Your task to perform on an android device: Go to location settings Image 0: 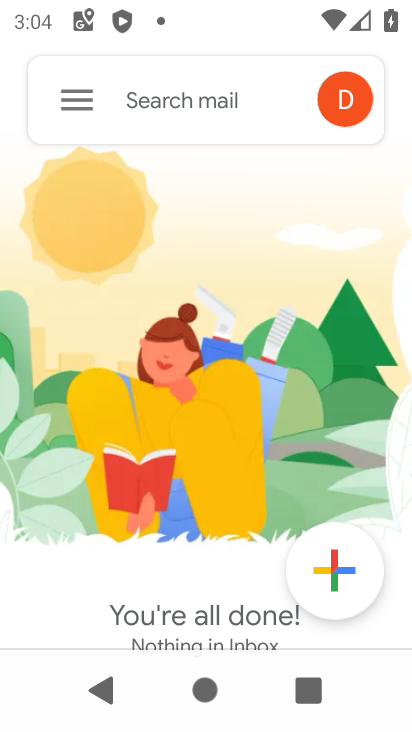
Step 0: drag from (369, 0) to (306, 636)
Your task to perform on an android device: Go to location settings Image 1: 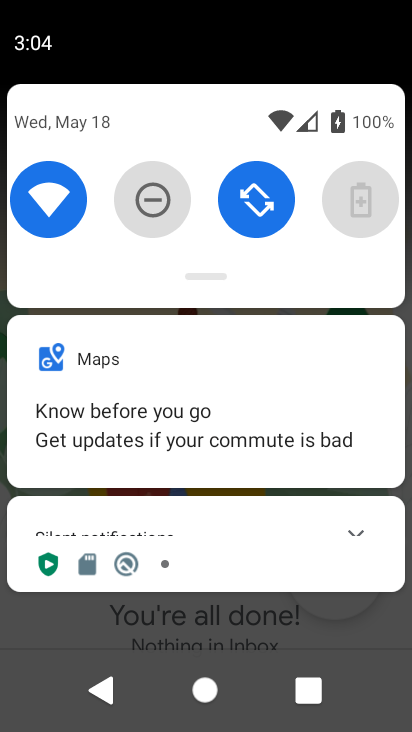
Step 1: drag from (229, 274) to (193, 718)
Your task to perform on an android device: Go to location settings Image 2: 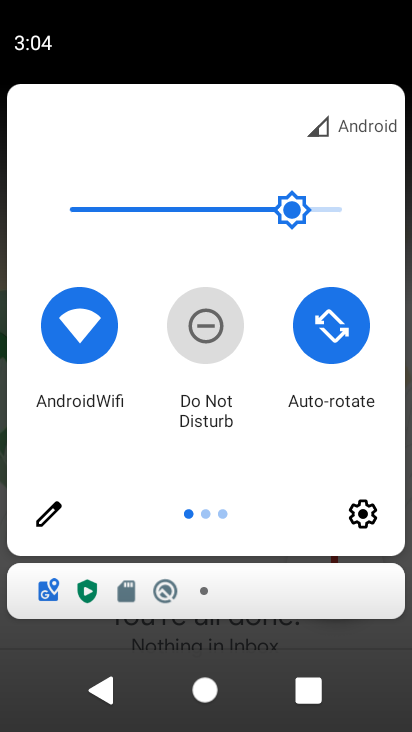
Step 2: click (43, 515)
Your task to perform on an android device: Go to location settings Image 3: 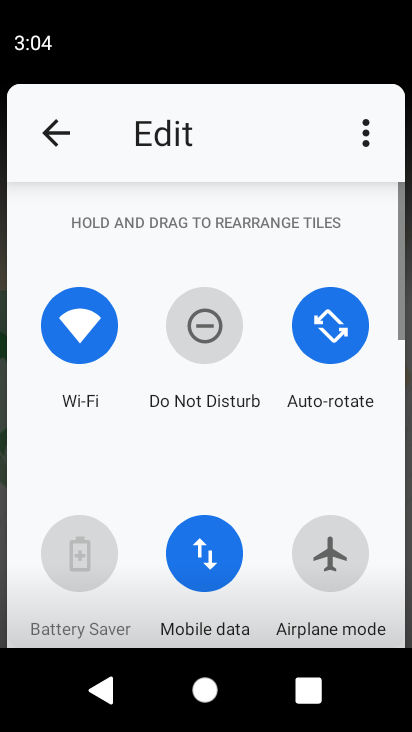
Step 3: drag from (158, 548) to (175, 96)
Your task to perform on an android device: Go to location settings Image 4: 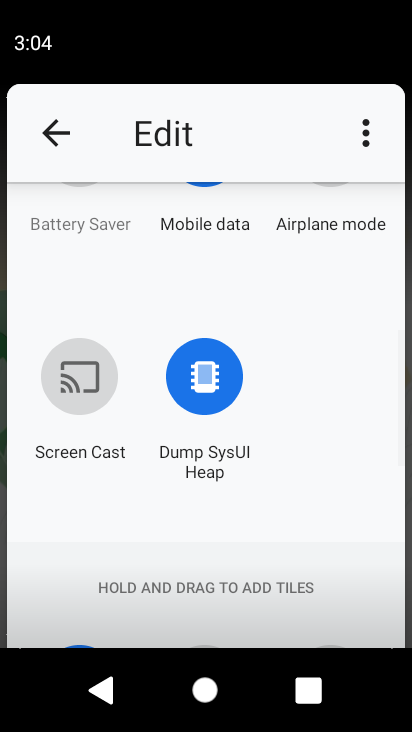
Step 4: drag from (159, 562) to (148, 302)
Your task to perform on an android device: Go to location settings Image 5: 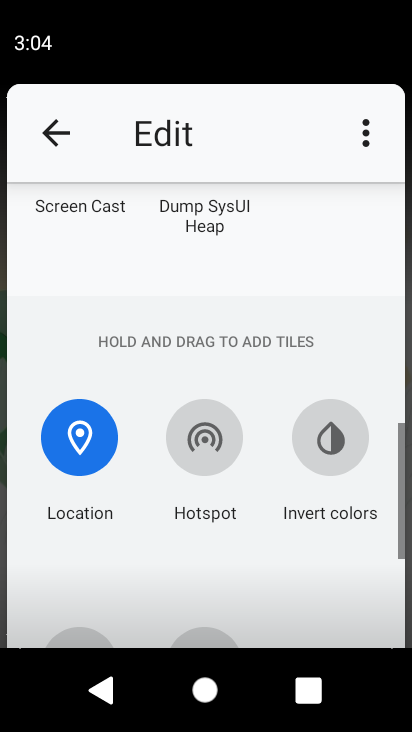
Step 5: drag from (96, 424) to (129, 333)
Your task to perform on an android device: Go to location settings Image 6: 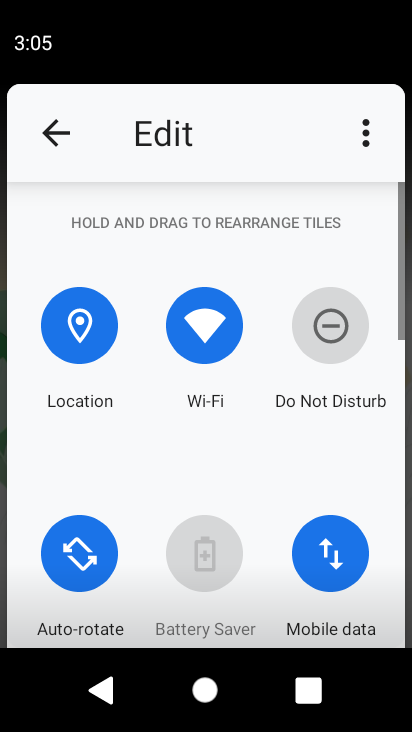
Step 6: click (63, 146)
Your task to perform on an android device: Go to location settings Image 7: 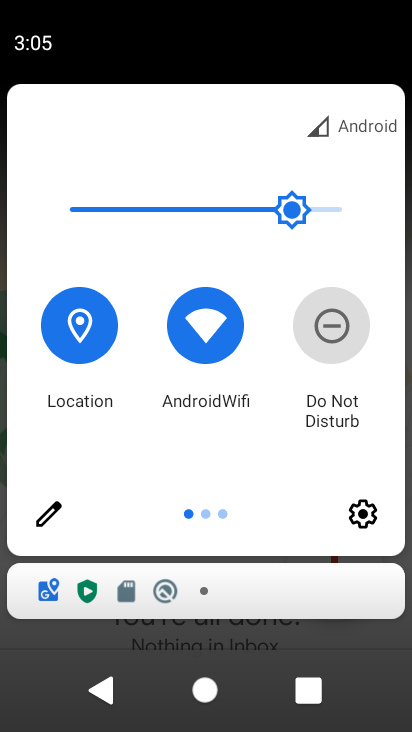
Step 7: click (83, 314)
Your task to perform on an android device: Go to location settings Image 8: 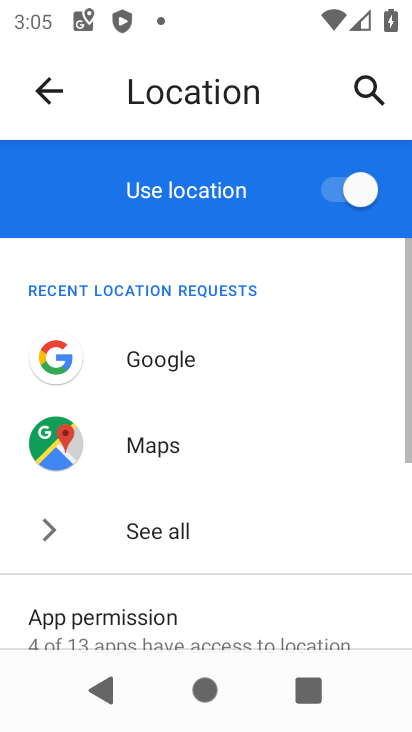
Step 8: task complete